Your task to perform on an android device: Open display settings Image 0: 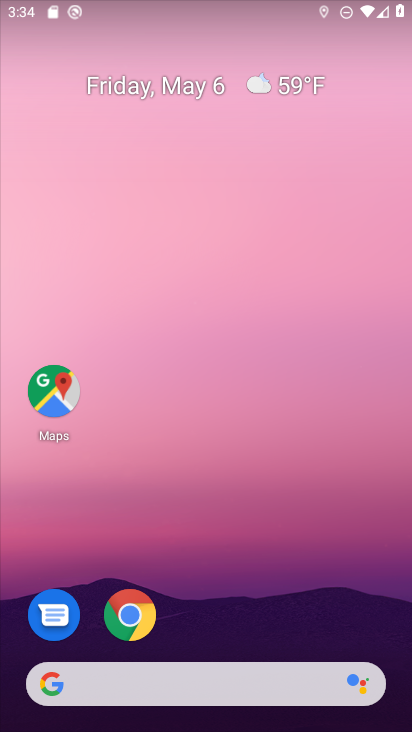
Step 0: drag from (348, 615) to (322, 93)
Your task to perform on an android device: Open display settings Image 1: 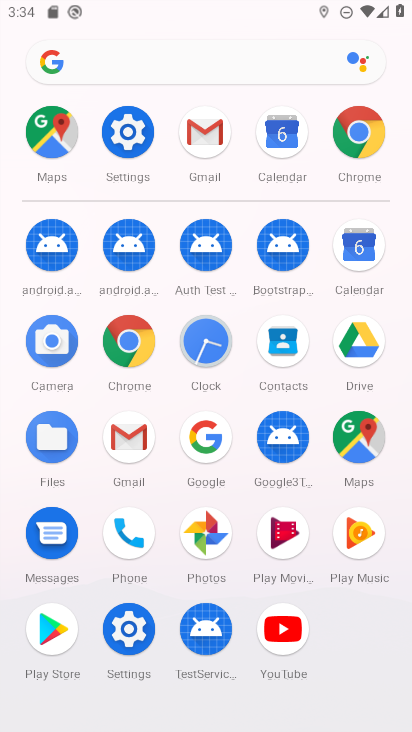
Step 1: click (134, 616)
Your task to perform on an android device: Open display settings Image 2: 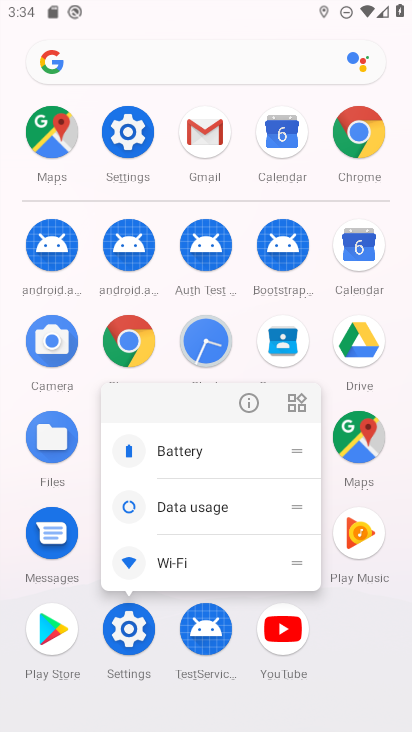
Step 2: click (123, 632)
Your task to perform on an android device: Open display settings Image 3: 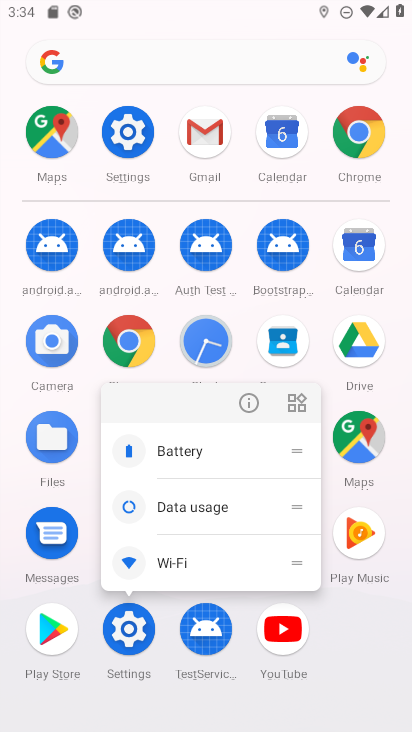
Step 3: click (130, 633)
Your task to perform on an android device: Open display settings Image 4: 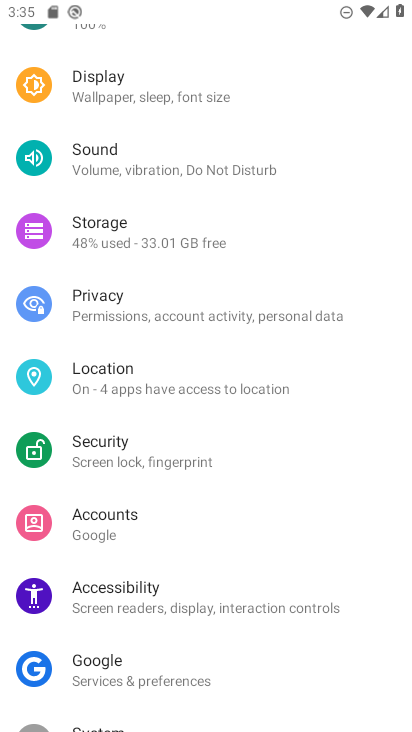
Step 4: click (145, 96)
Your task to perform on an android device: Open display settings Image 5: 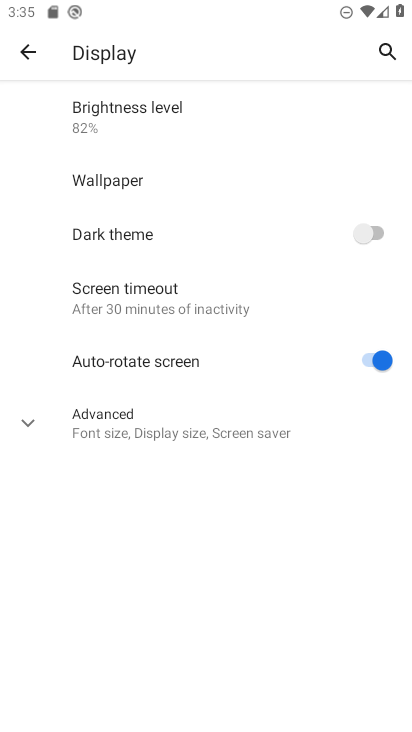
Step 5: task complete